Your task to perform on an android device: When is my next appointment? Image 0: 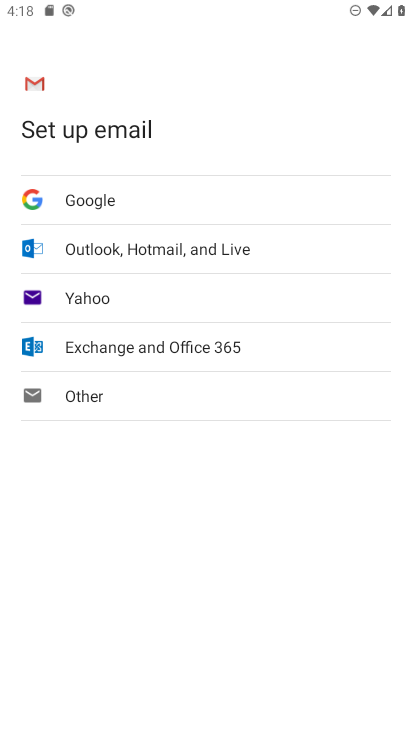
Step 0: press back button
Your task to perform on an android device: When is my next appointment? Image 1: 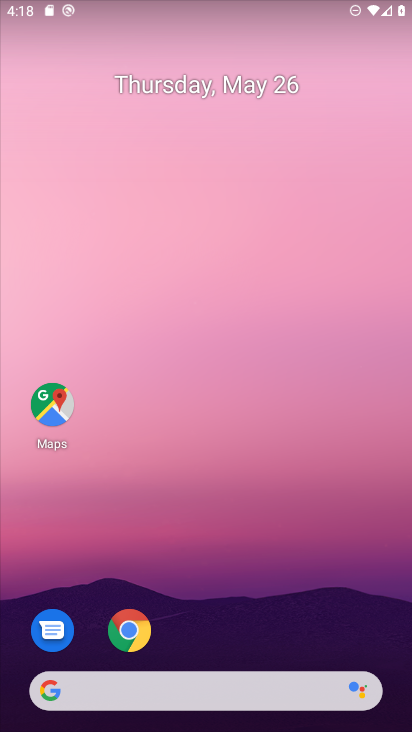
Step 1: drag from (239, 599) to (245, 135)
Your task to perform on an android device: When is my next appointment? Image 2: 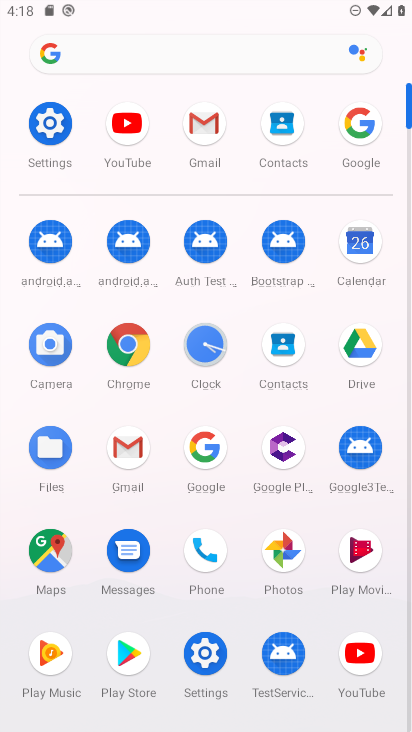
Step 2: click (363, 242)
Your task to perform on an android device: When is my next appointment? Image 3: 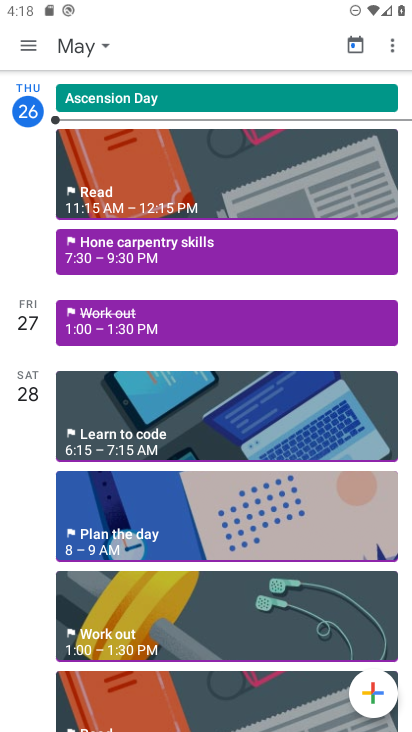
Step 3: click (355, 43)
Your task to perform on an android device: When is my next appointment? Image 4: 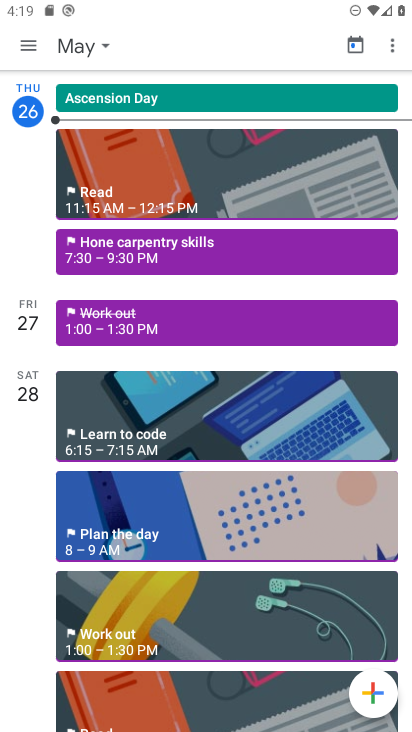
Step 4: click (101, 45)
Your task to perform on an android device: When is my next appointment? Image 5: 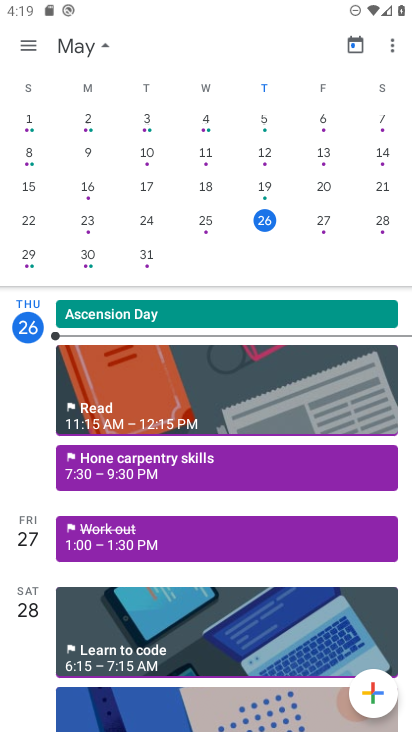
Step 5: click (327, 223)
Your task to perform on an android device: When is my next appointment? Image 6: 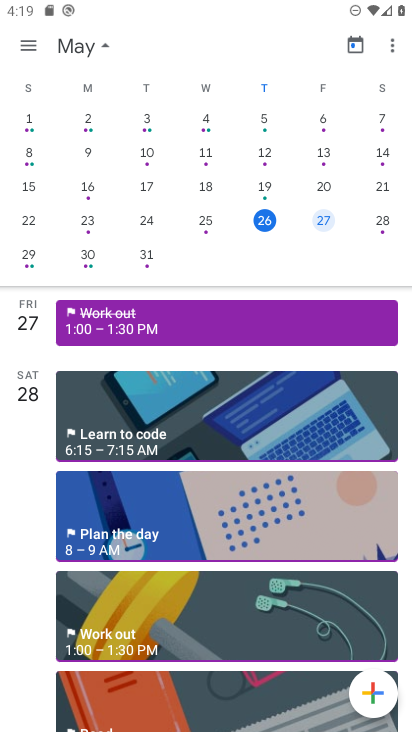
Step 6: click (25, 49)
Your task to perform on an android device: When is my next appointment? Image 7: 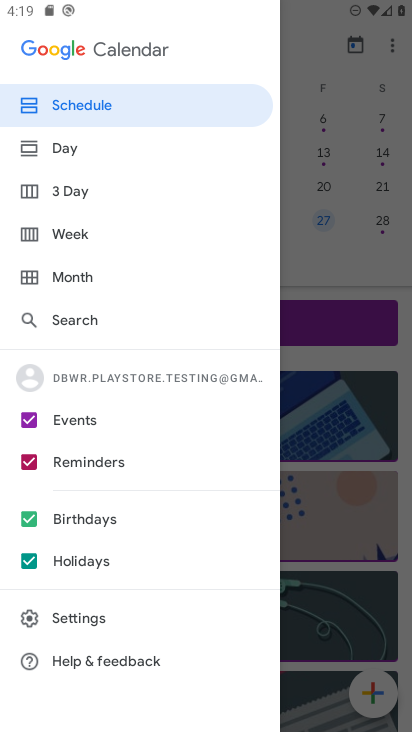
Step 7: click (86, 106)
Your task to perform on an android device: When is my next appointment? Image 8: 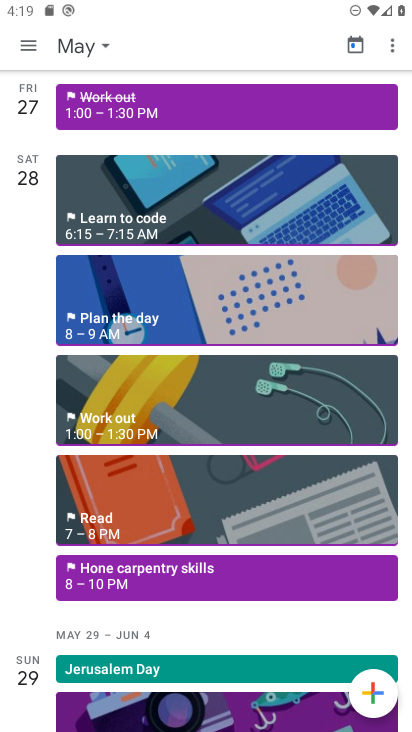
Step 8: task complete